Your task to perform on an android device: allow cookies in the chrome app Image 0: 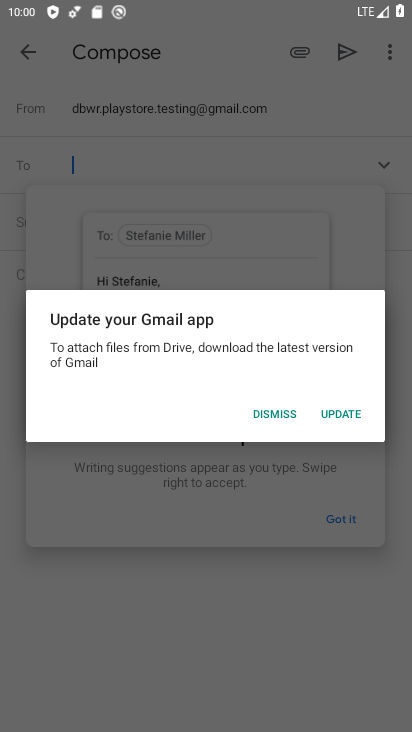
Step 0: click (276, 415)
Your task to perform on an android device: allow cookies in the chrome app Image 1: 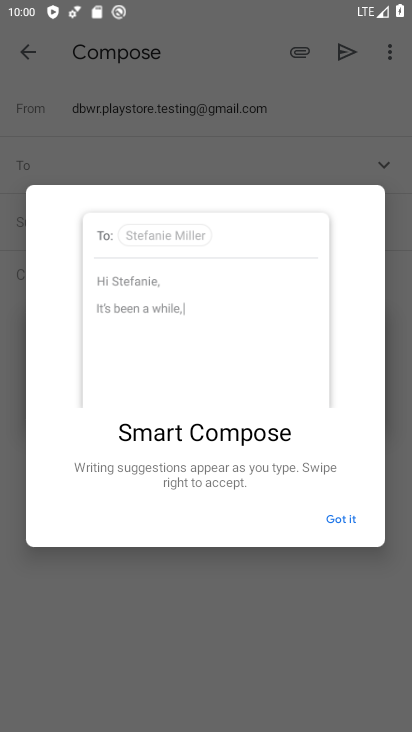
Step 1: click (348, 520)
Your task to perform on an android device: allow cookies in the chrome app Image 2: 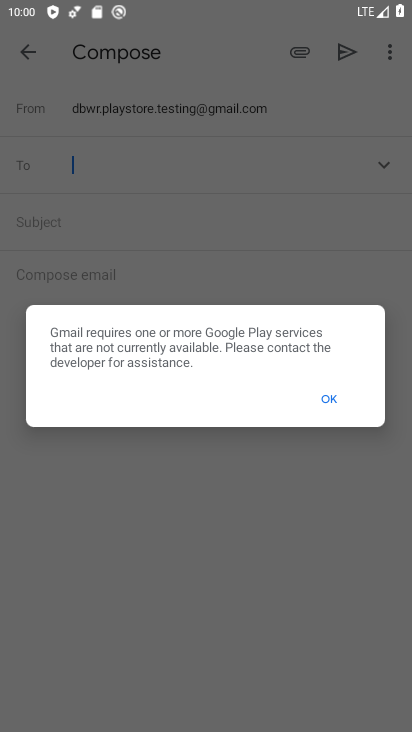
Step 2: press back button
Your task to perform on an android device: allow cookies in the chrome app Image 3: 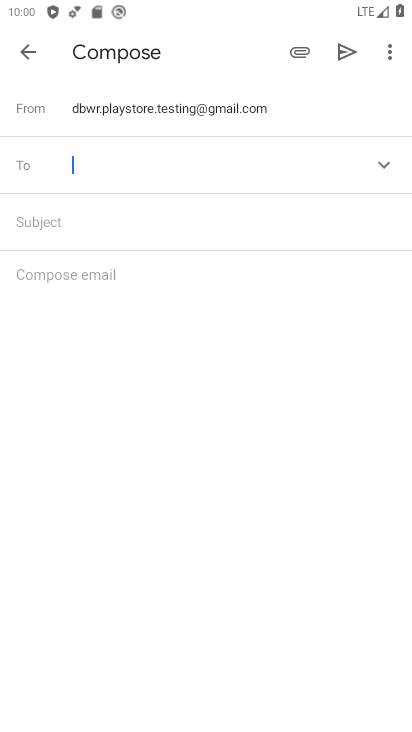
Step 3: press back button
Your task to perform on an android device: allow cookies in the chrome app Image 4: 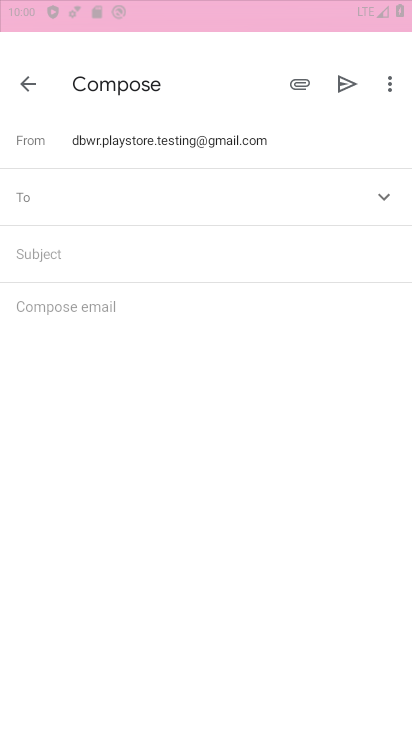
Step 4: press back button
Your task to perform on an android device: allow cookies in the chrome app Image 5: 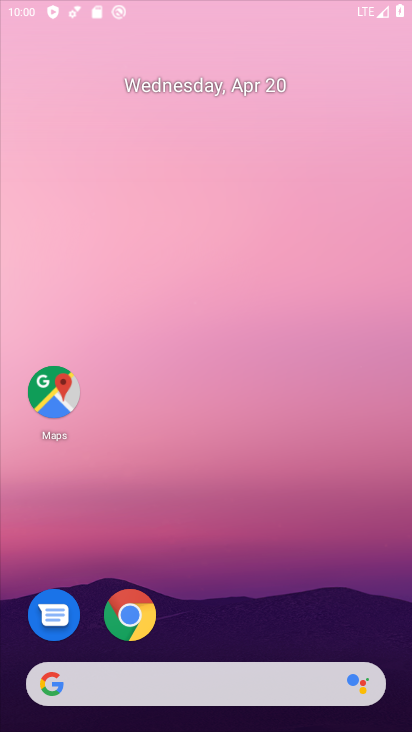
Step 5: press back button
Your task to perform on an android device: allow cookies in the chrome app Image 6: 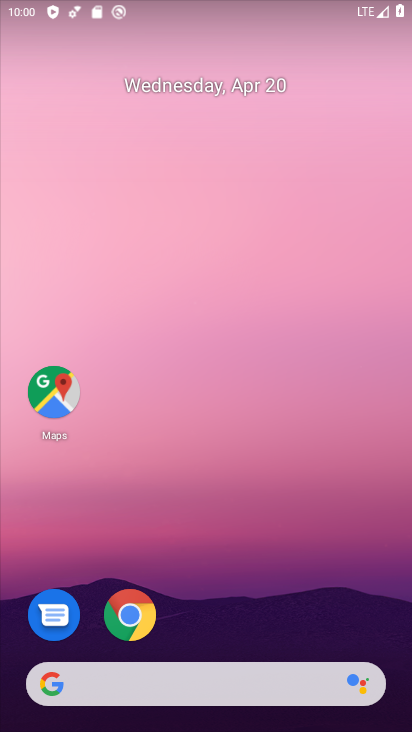
Step 6: click (290, 494)
Your task to perform on an android device: allow cookies in the chrome app Image 7: 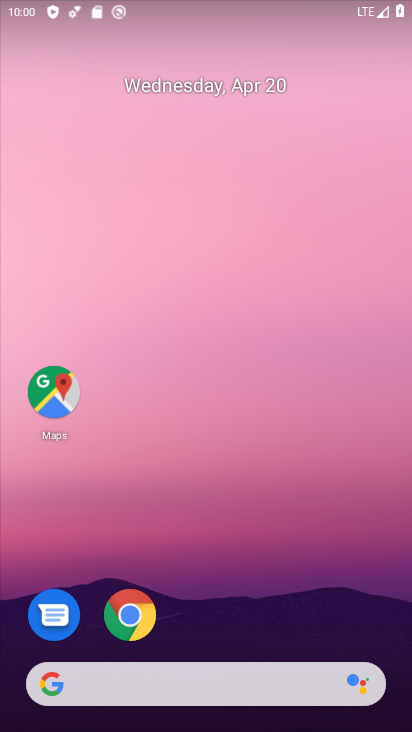
Step 7: click (144, 617)
Your task to perform on an android device: allow cookies in the chrome app Image 8: 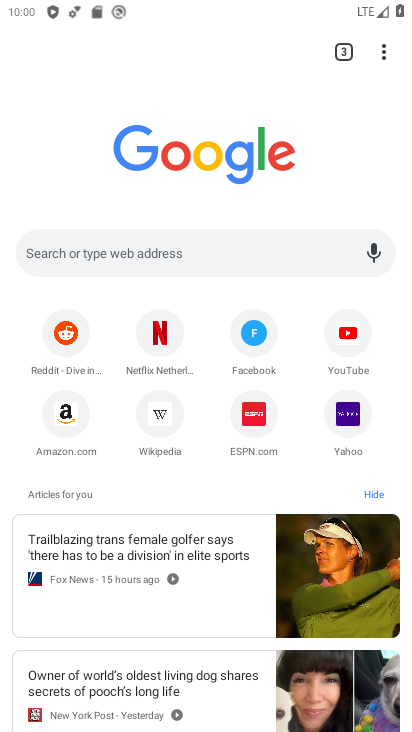
Step 8: click (378, 63)
Your task to perform on an android device: allow cookies in the chrome app Image 9: 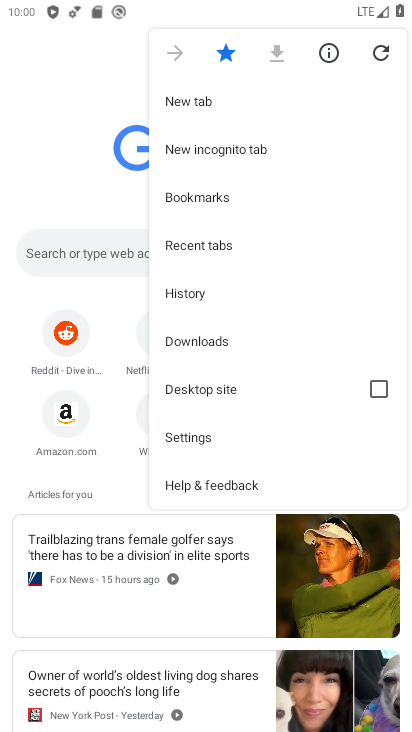
Step 9: click (253, 434)
Your task to perform on an android device: allow cookies in the chrome app Image 10: 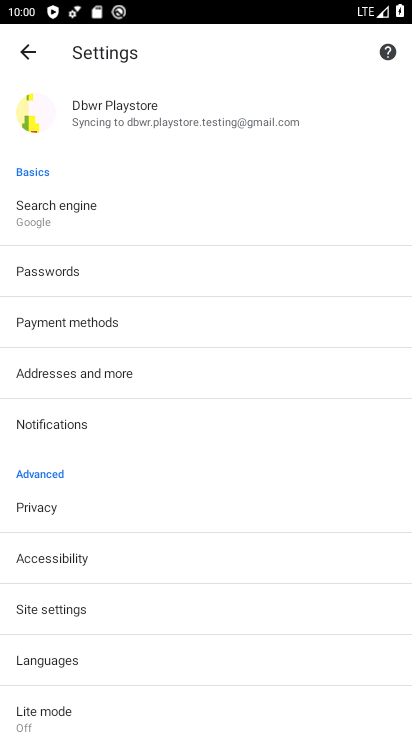
Step 10: click (143, 600)
Your task to perform on an android device: allow cookies in the chrome app Image 11: 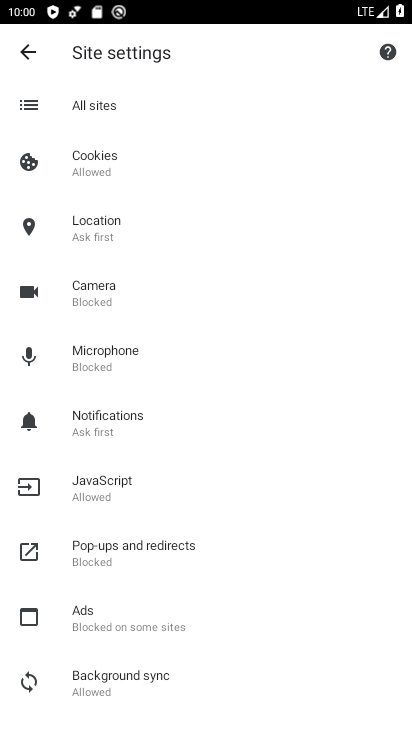
Step 11: task complete